Your task to perform on an android device: remove spam from my inbox in the gmail app Image 0: 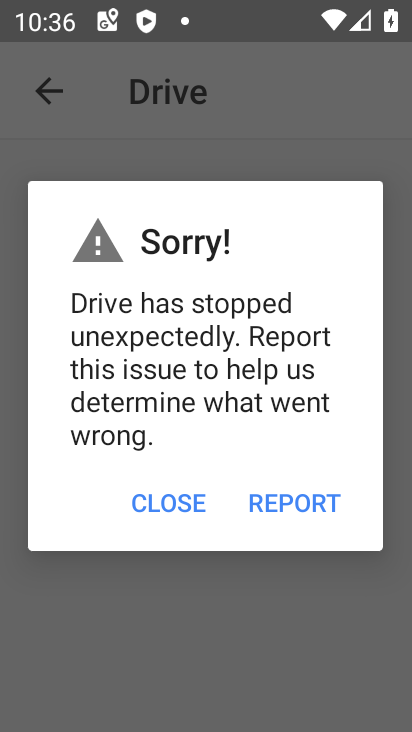
Step 0: press home button
Your task to perform on an android device: remove spam from my inbox in the gmail app Image 1: 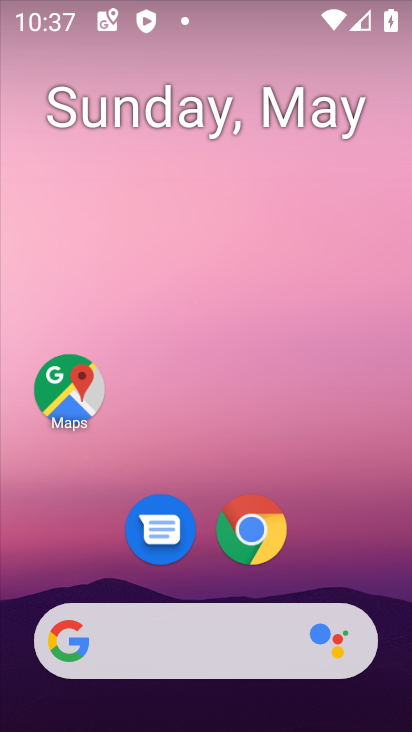
Step 1: drag from (127, 606) to (85, 14)
Your task to perform on an android device: remove spam from my inbox in the gmail app Image 2: 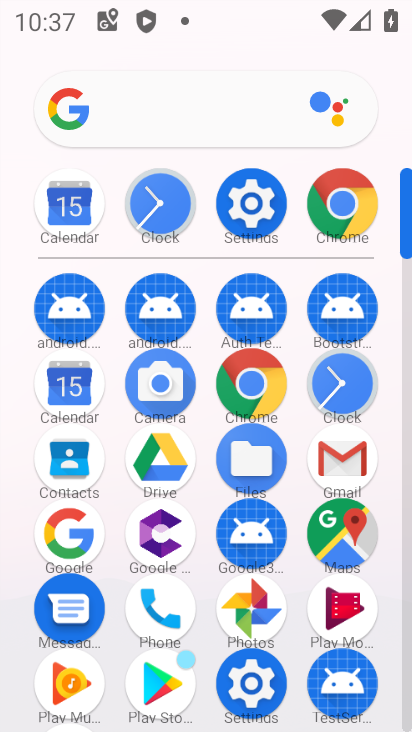
Step 2: click (335, 465)
Your task to perform on an android device: remove spam from my inbox in the gmail app Image 3: 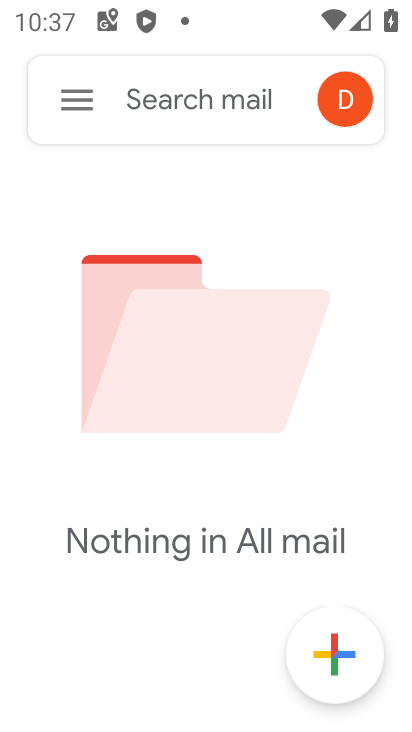
Step 3: click (64, 98)
Your task to perform on an android device: remove spam from my inbox in the gmail app Image 4: 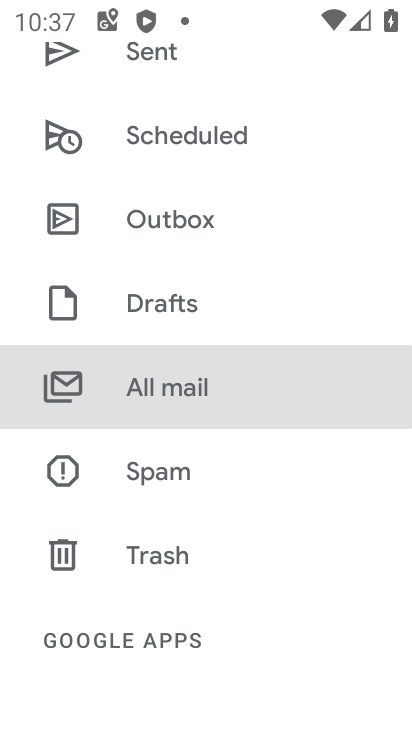
Step 4: click (177, 452)
Your task to perform on an android device: remove spam from my inbox in the gmail app Image 5: 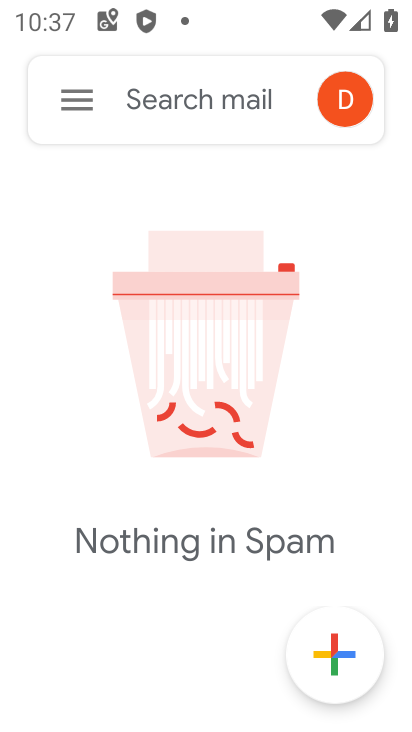
Step 5: task complete